Your task to perform on an android device: open app "Lyft - Rideshare, Bikes, Scooters & Transit" (install if not already installed) Image 0: 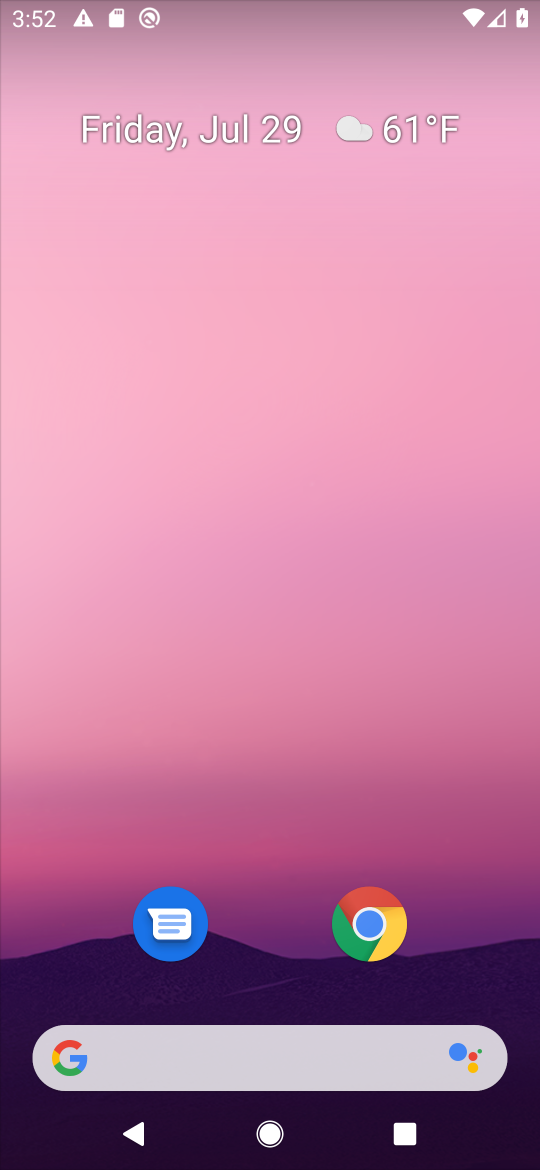
Step 0: drag from (445, 992) to (483, 0)
Your task to perform on an android device: open app "Lyft - Rideshare, Bikes, Scooters & Transit" (install if not already installed) Image 1: 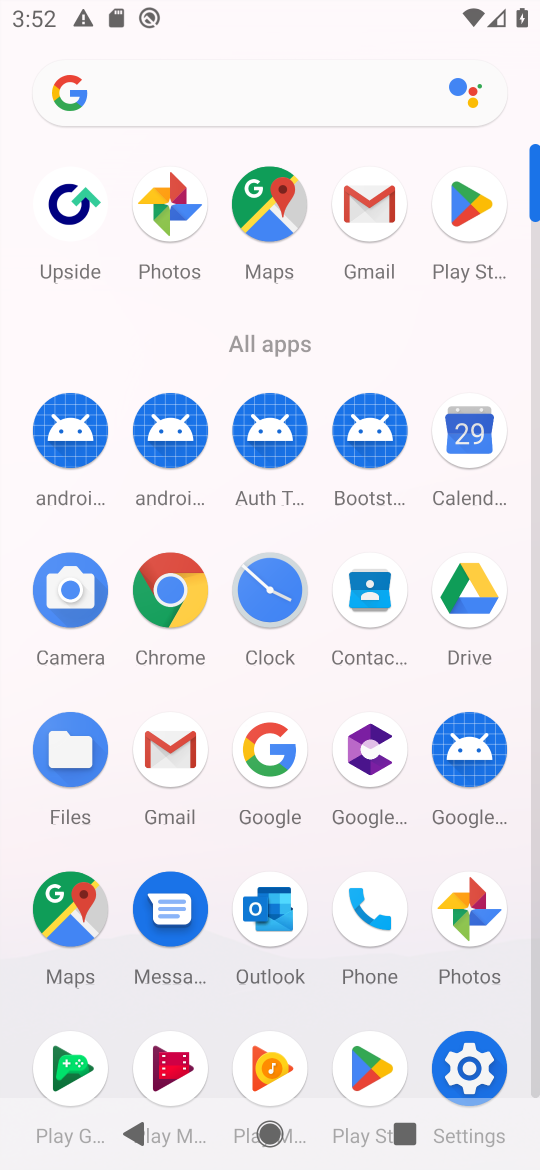
Step 1: click (454, 203)
Your task to perform on an android device: open app "Lyft - Rideshare, Bikes, Scooters & Transit" (install if not already installed) Image 2: 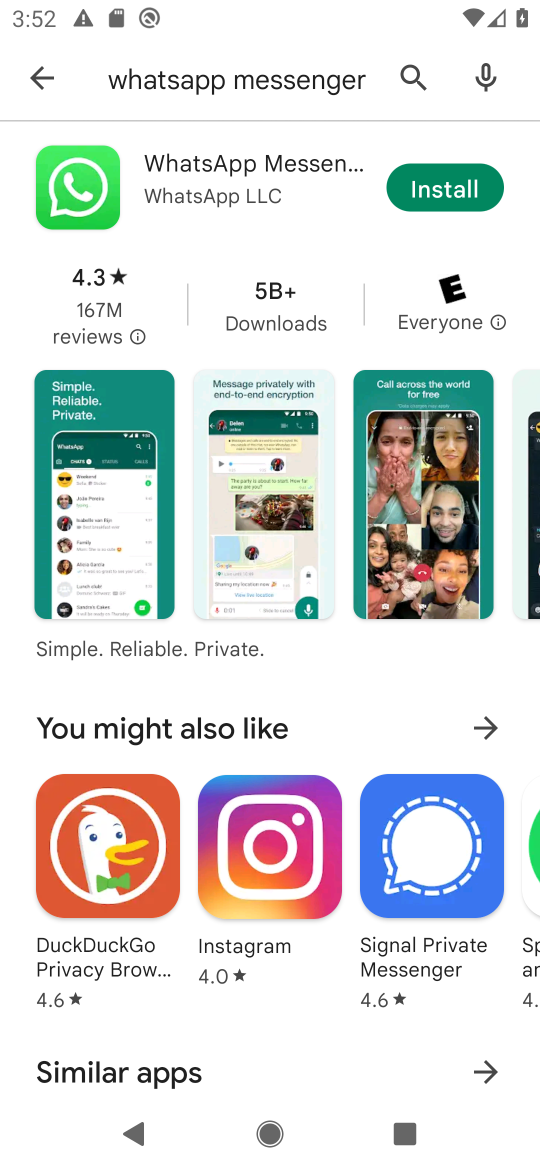
Step 2: click (416, 74)
Your task to perform on an android device: open app "Lyft - Rideshare, Bikes, Scooters & Transit" (install if not already installed) Image 3: 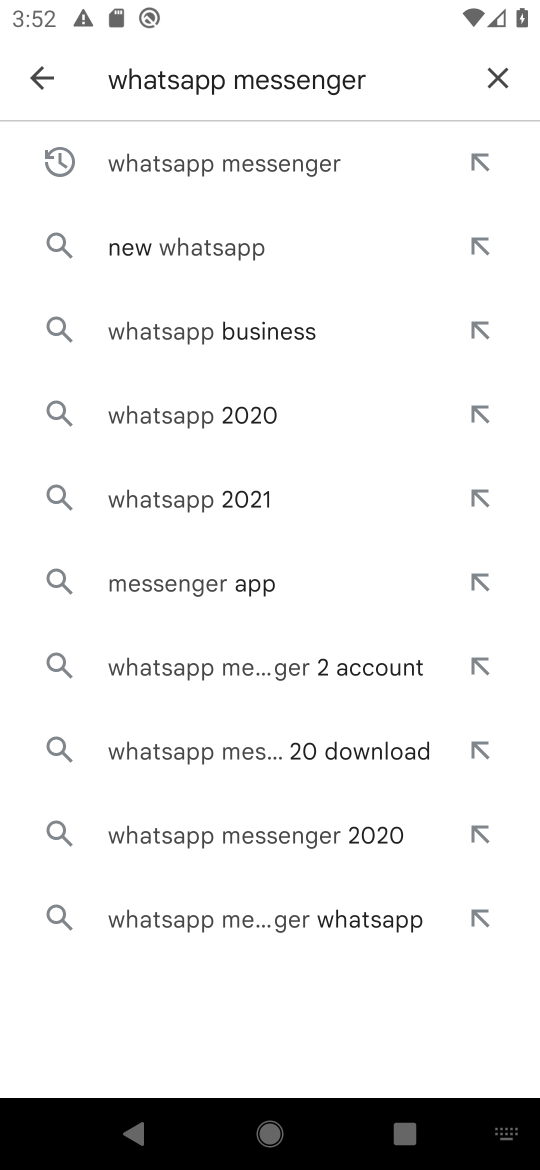
Step 3: click (489, 86)
Your task to perform on an android device: open app "Lyft - Rideshare, Bikes, Scooters & Transit" (install if not already installed) Image 4: 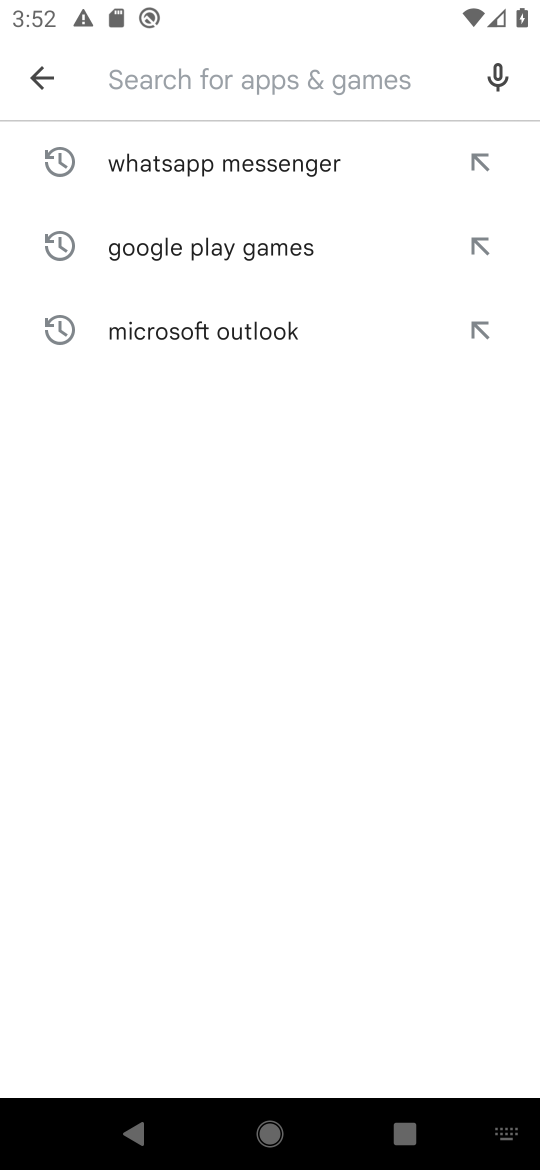
Step 4: click (319, 78)
Your task to perform on an android device: open app "Lyft - Rideshare, Bikes, Scooters & Transit" (install if not already installed) Image 5: 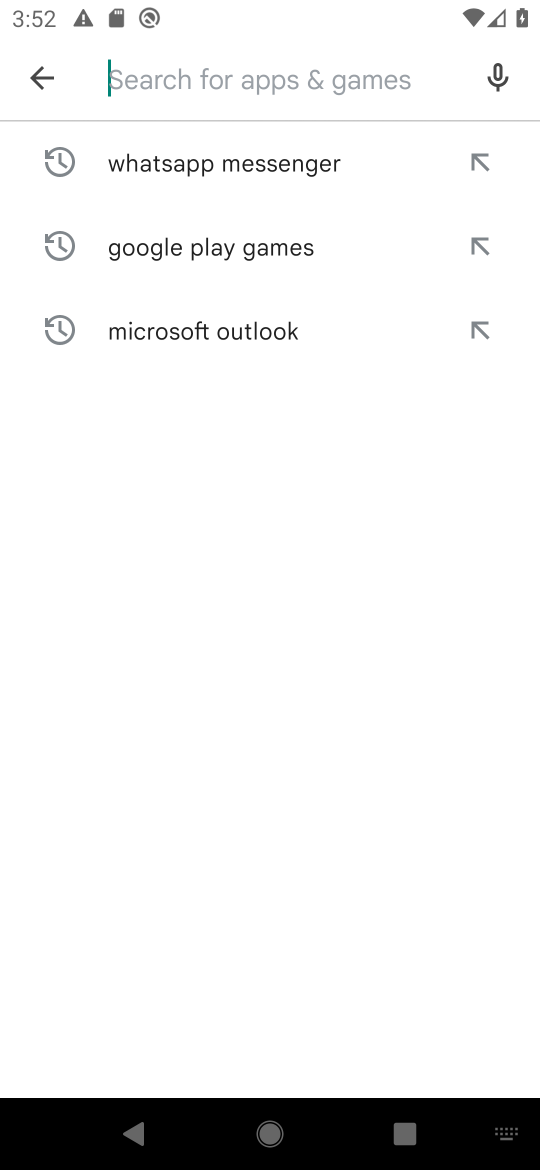
Step 5: type "Lyft - Rideshare, Bikes, Scooters & Transit"
Your task to perform on an android device: open app "Lyft - Rideshare, Bikes, Scooters & Transit" (install if not already installed) Image 6: 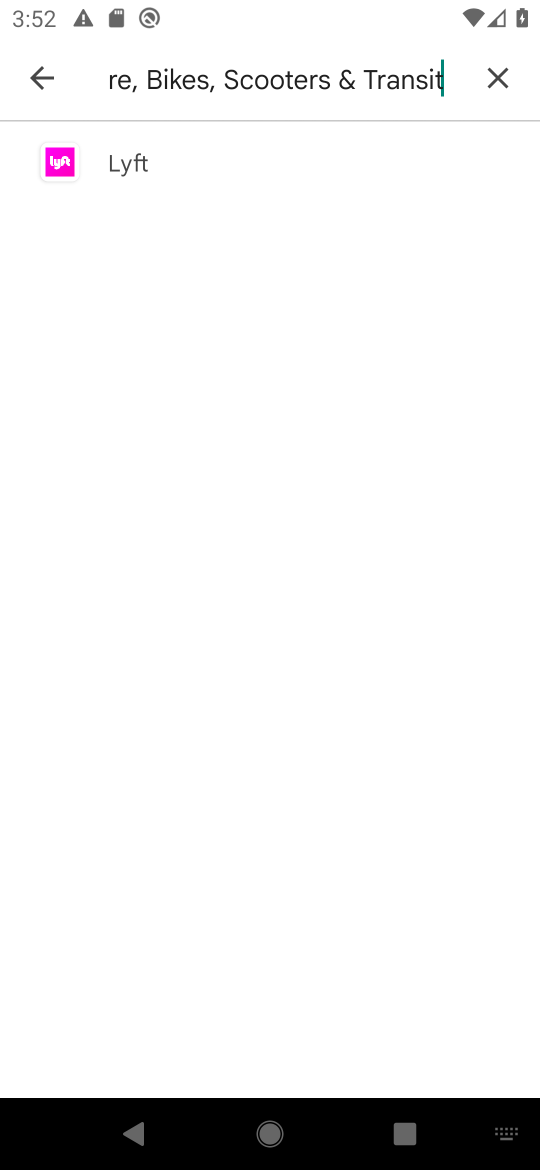
Step 6: click (112, 166)
Your task to perform on an android device: open app "Lyft - Rideshare, Bikes, Scooters & Transit" (install if not already installed) Image 7: 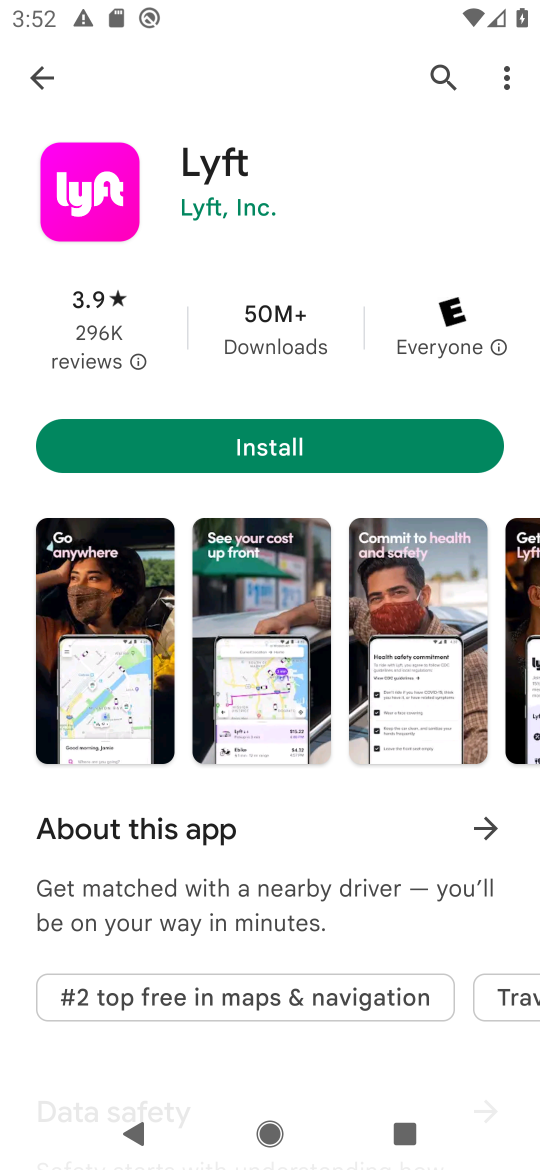
Step 7: click (201, 429)
Your task to perform on an android device: open app "Lyft - Rideshare, Bikes, Scooters & Transit" (install if not already installed) Image 8: 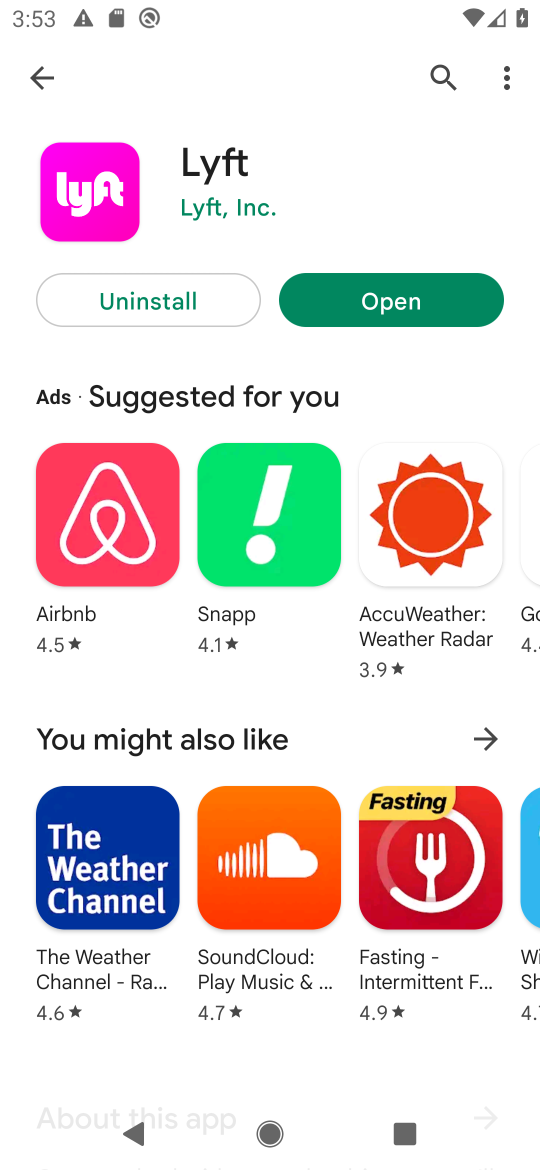
Step 8: click (384, 294)
Your task to perform on an android device: open app "Lyft - Rideshare, Bikes, Scooters & Transit" (install if not already installed) Image 9: 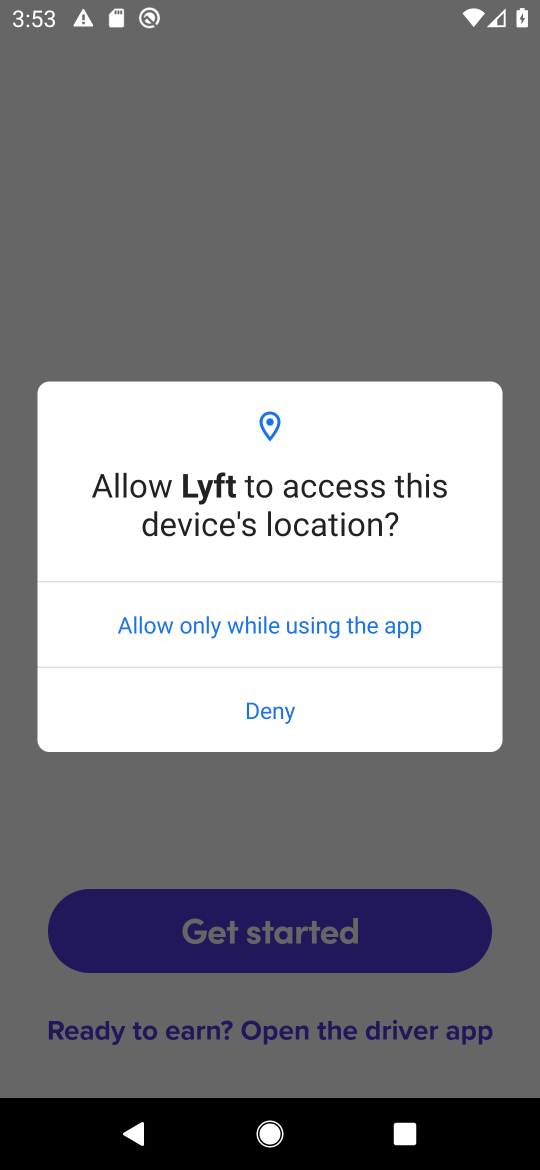
Step 9: task complete